Your task to perform on an android device: Open Youtube and go to "Your channel" Image 0: 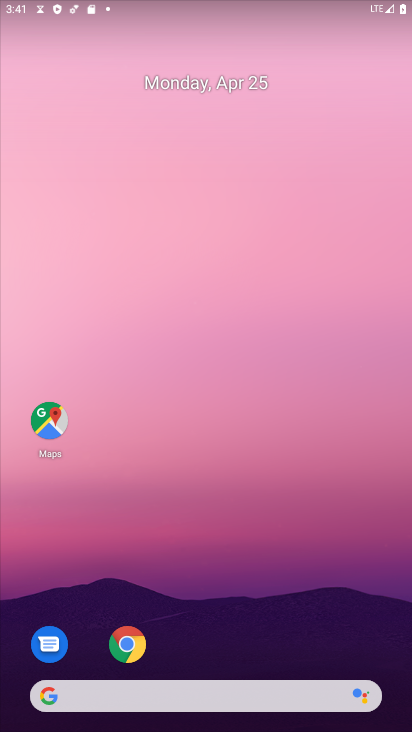
Step 0: drag from (225, 658) to (231, 197)
Your task to perform on an android device: Open Youtube and go to "Your channel" Image 1: 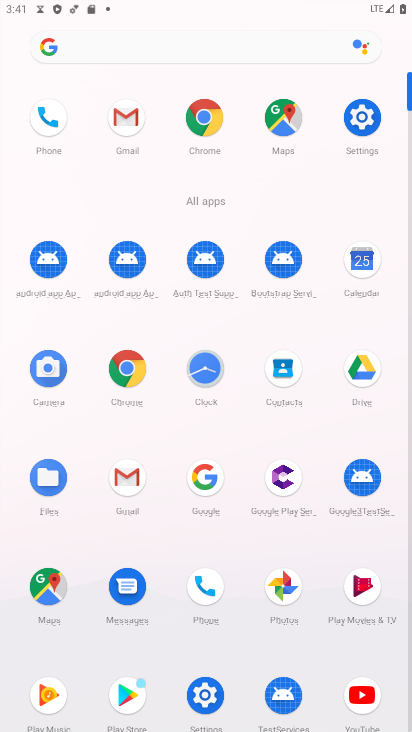
Step 1: click (354, 687)
Your task to perform on an android device: Open Youtube and go to "Your channel" Image 2: 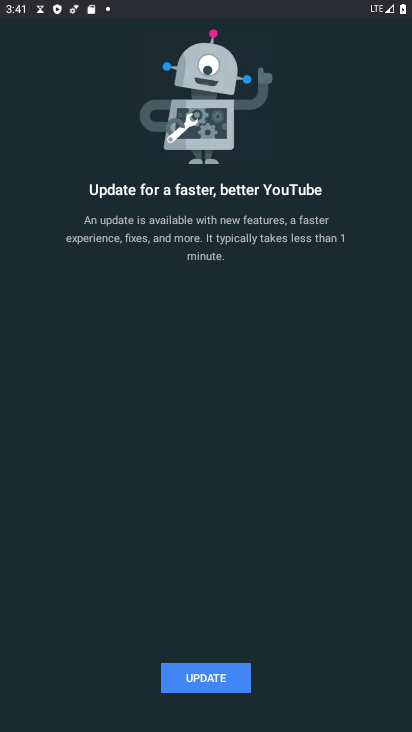
Step 2: click (232, 670)
Your task to perform on an android device: Open Youtube and go to "Your channel" Image 3: 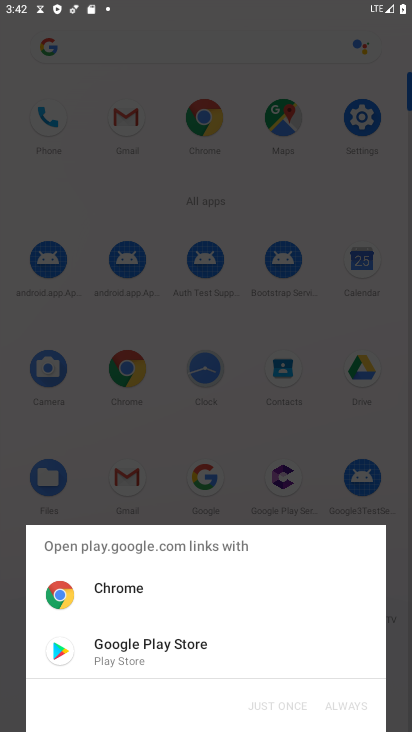
Step 3: click (202, 650)
Your task to perform on an android device: Open Youtube and go to "Your channel" Image 4: 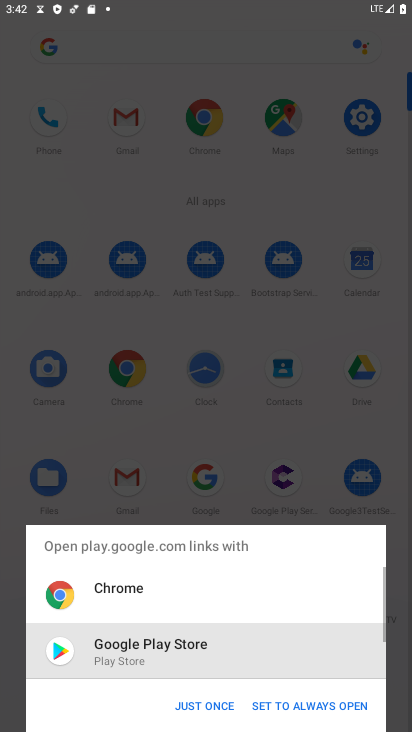
Step 4: click (202, 690)
Your task to perform on an android device: Open Youtube and go to "Your channel" Image 5: 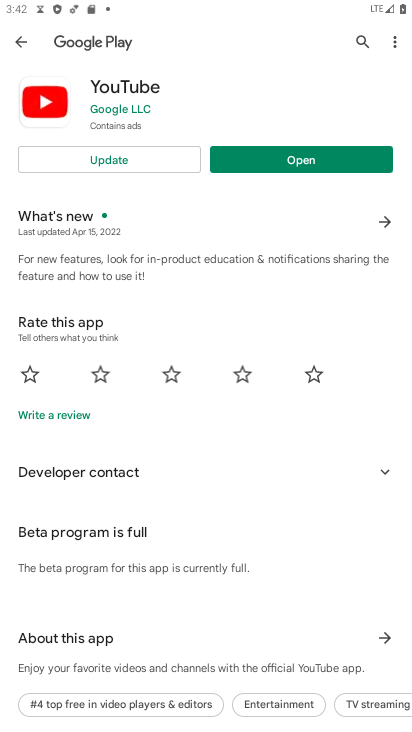
Step 5: click (113, 160)
Your task to perform on an android device: Open Youtube and go to "Your channel" Image 6: 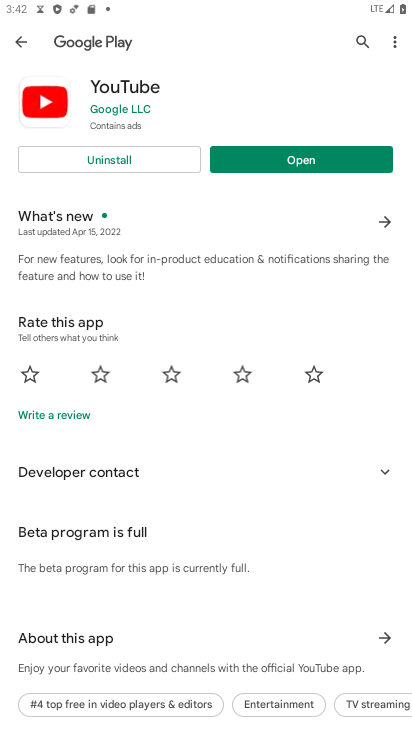
Step 6: click (325, 158)
Your task to perform on an android device: Open Youtube and go to "Your channel" Image 7: 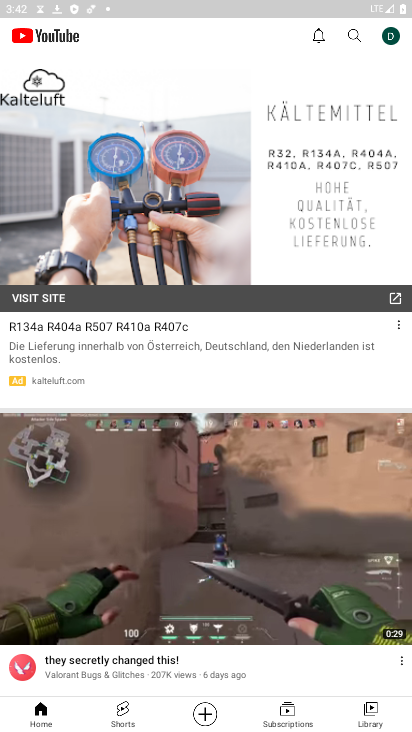
Step 7: click (390, 38)
Your task to perform on an android device: Open Youtube and go to "Your channel" Image 8: 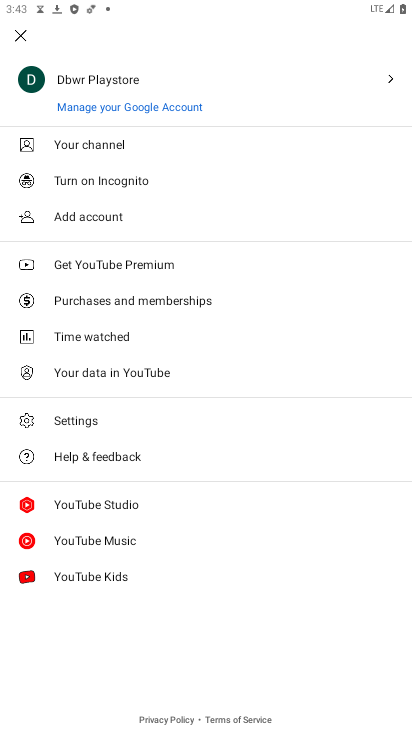
Step 8: click (148, 145)
Your task to perform on an android device: Open Youtube and go to "Your channel" Image 9: 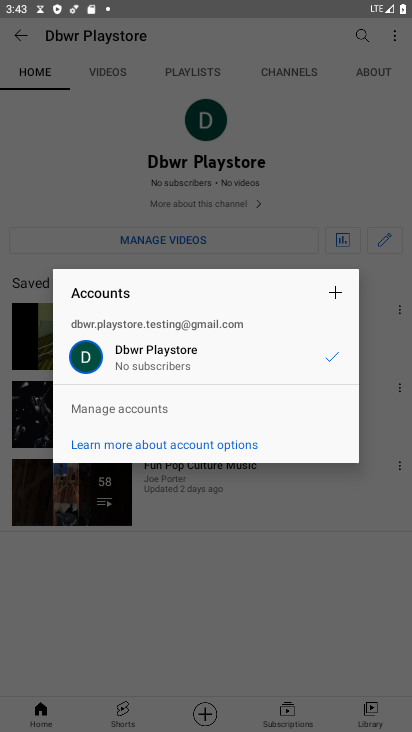
Step 9: click (243, 195)
Your task to perform on an android device: Open Youtube and go to "Your channel" Image 10: 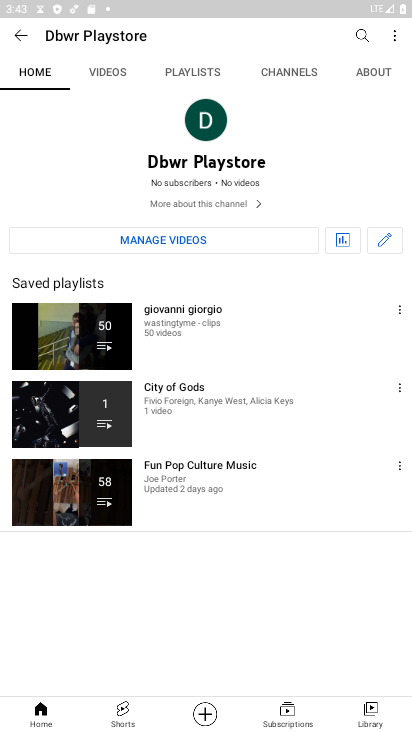
Step 10: task complete